Your task to perform on an android device: Show me the alarms in the clock app Image 0: 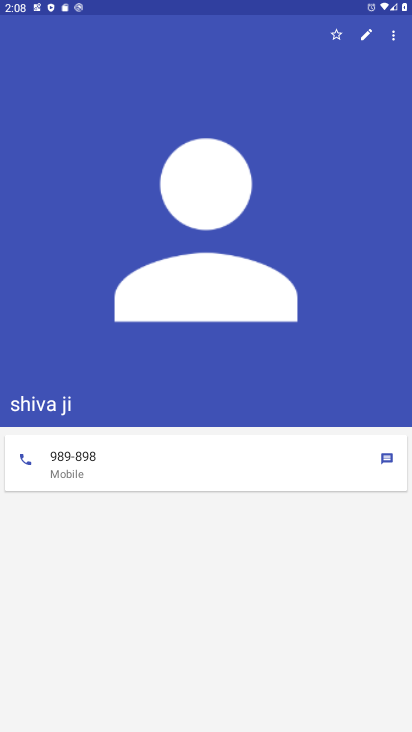
Step 0: press home button
Your task to perform on an android device: Show me the alarms in the clock app Image 1: 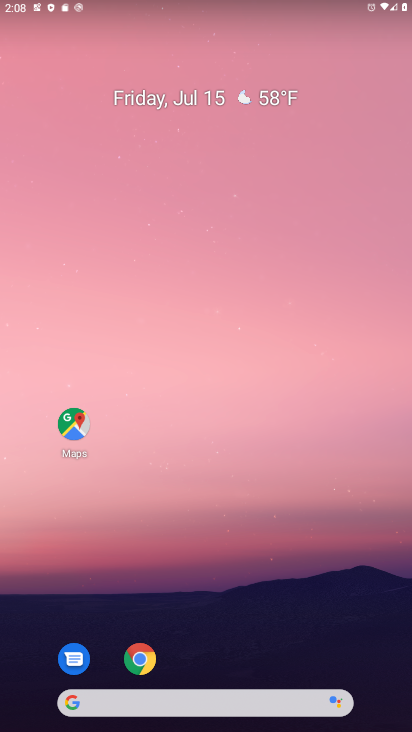
Step 1: drag from (199, 722) to (213, 151)
Your task to perform on an android device: Show me the alarms in the clock app Image 2: 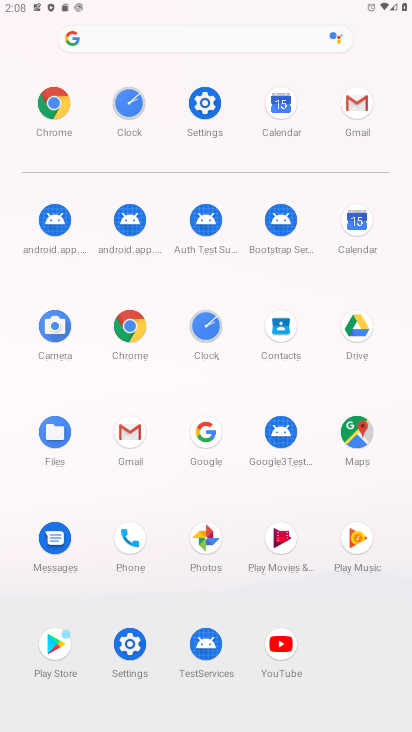
Step 2: click (201, 320)
Your task to perform on an android device: Show me the alarms in the clock app Image 3: 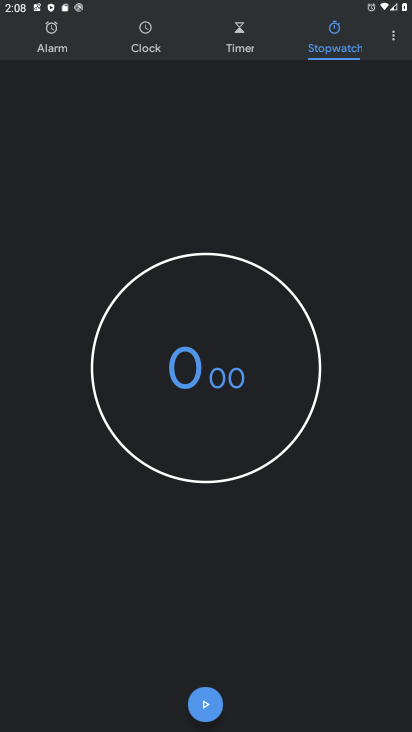
Step 3: click (52, 41)
Your task to perform on an android device: Show me the alarms in the clock app Image 4: 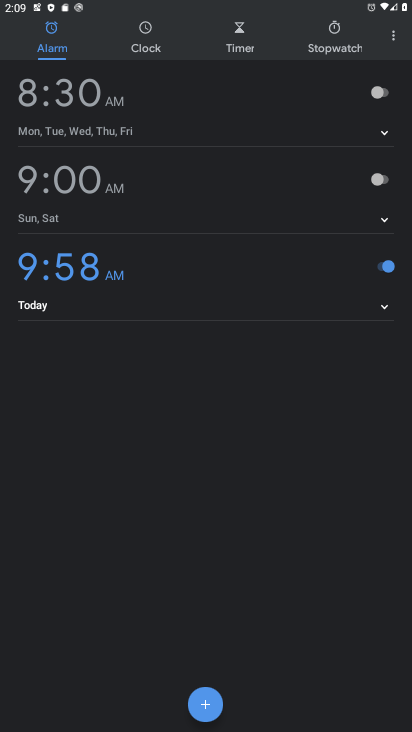
Step 4: task complete